Your task to perform on an android device: see creations saved in the google photos Image 0: 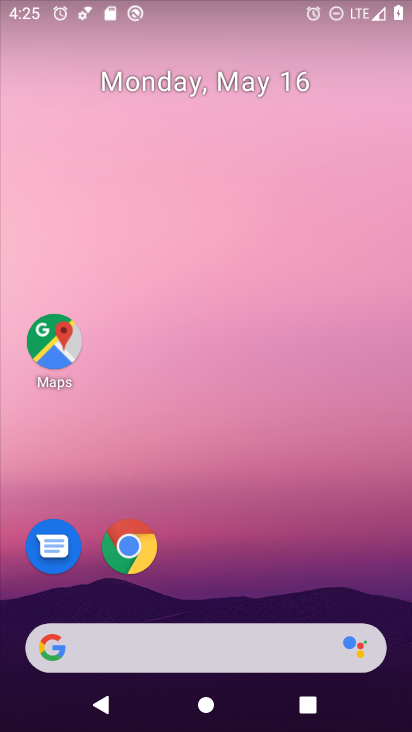
Step 0: drag from (329, 589) to (337, 115)
Your task to perform on an android device: see creations saved in the google photos Image 1: 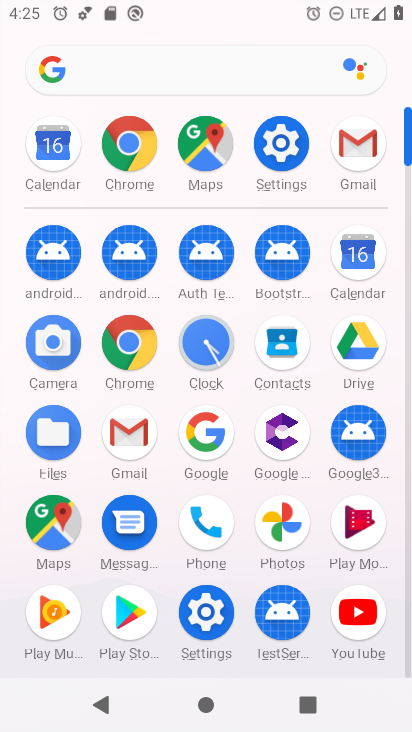
Step 1: click (278, 520)
Your task to perform on an android device: see creations saved in the google photos Image 2: 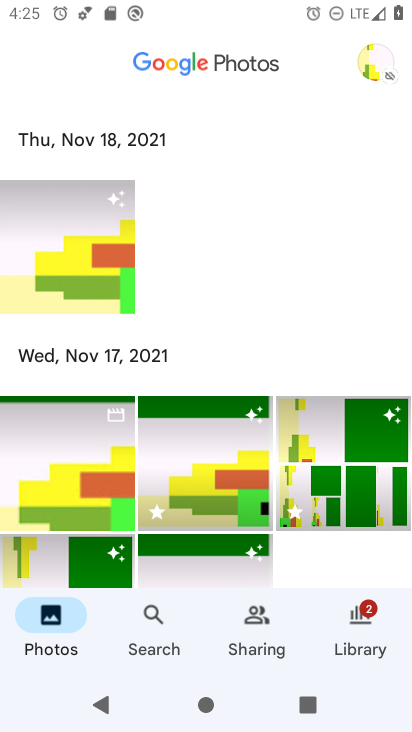
Step 2: click (217, 60)
Your task to perform on an android device: see creations saved in the google photos Image 3: 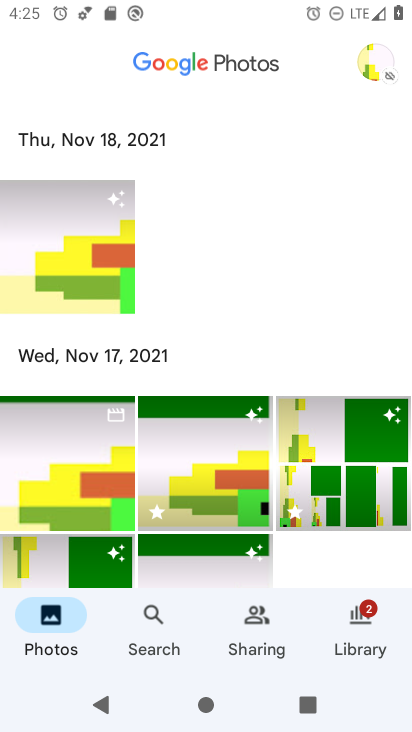
Step 3: click (171, 639)
Your task to perform on an android device: see creations saved in the google photos Image 4: 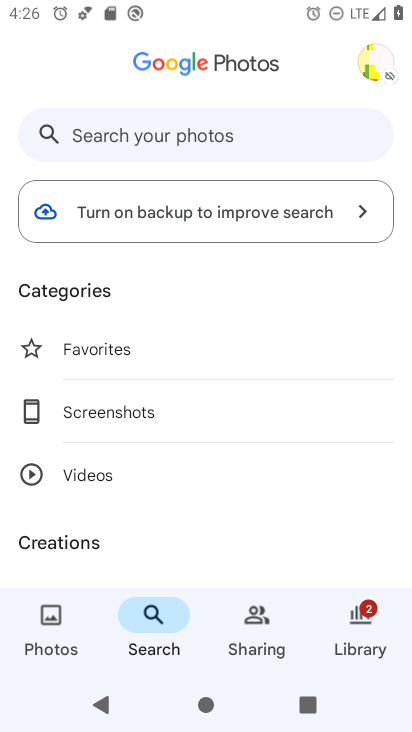
Step 4: drag from (277, 482) to (275, 337)
Your task to perform on an android device: see creations saved in the google photos Image 5: 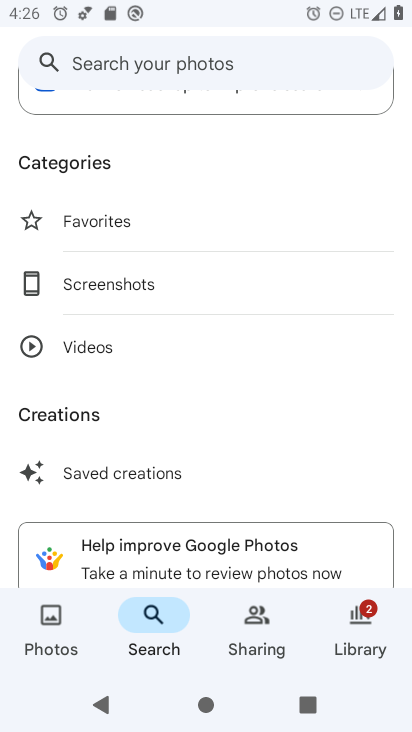
Step 5: drag from (262, 511) to (253, 401)
Your task to perform on an android device: see creations saved in the google photos Image 6: 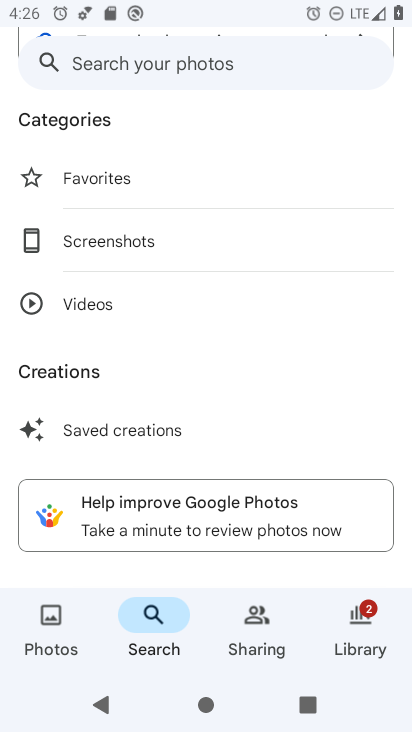
Step 6: click (131, 430)
Your task to perform on an android device: see creations saved in the google photos Image 7: 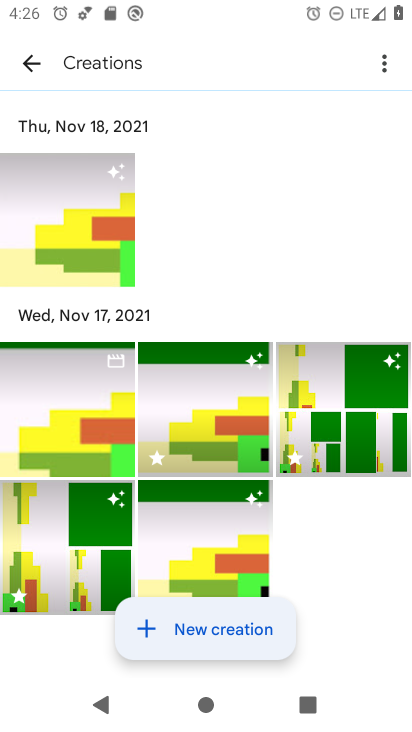
Step 7: task complete